Your task to perform on an android device: check out phone information Image 0: 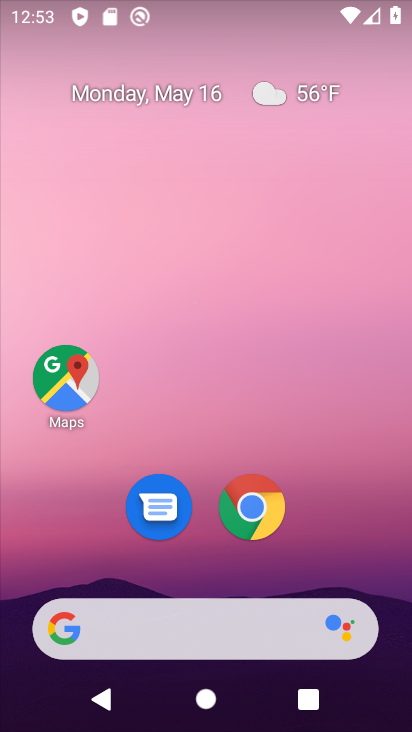
Step 0: drag from (214, 579) to (219, 204)
Your task to perform on an android device: check out phone information Image 1: 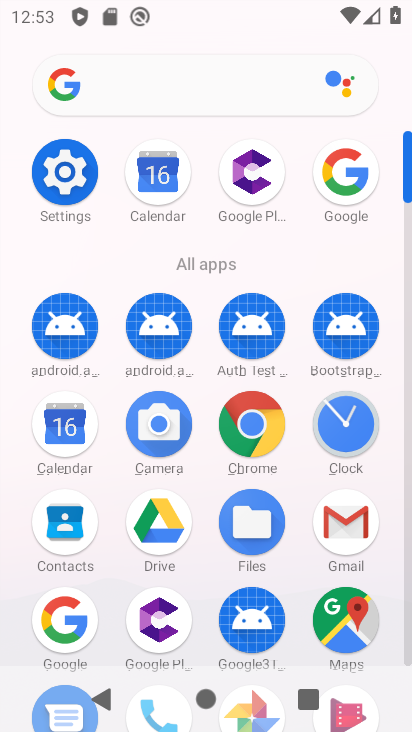
Step 1: click (57, 201)
Your task to perform on an android device: check out phone information Image 2: 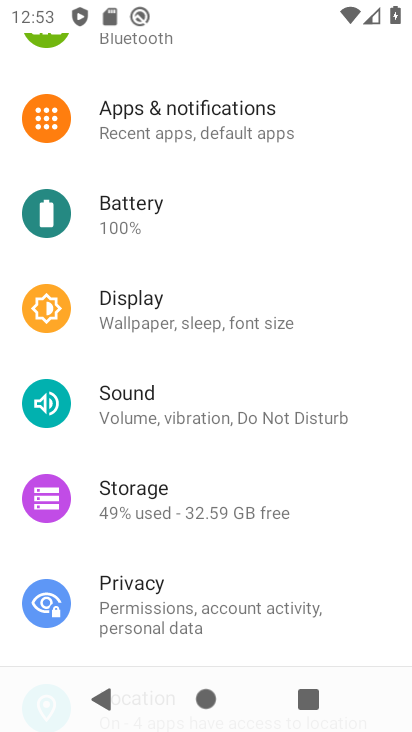
Step 2: drag from (246, 629) to (246, 240)
Your task to perform on an android device: check out phone information Image 3: 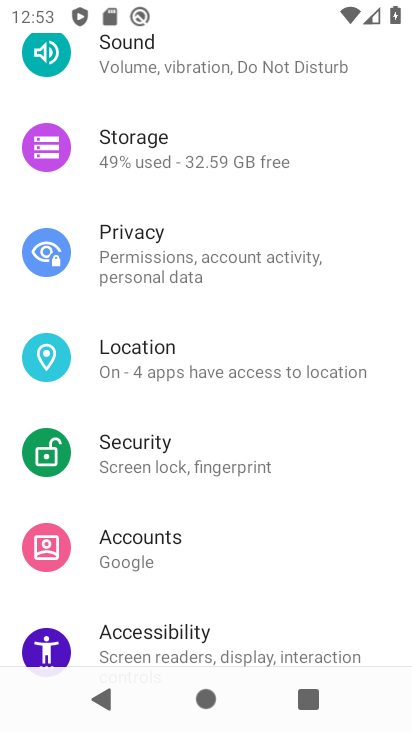
Step 3: drag from (215, 555) to (215, 259)
Your task to perform on an android device: check out phone information Image 4: 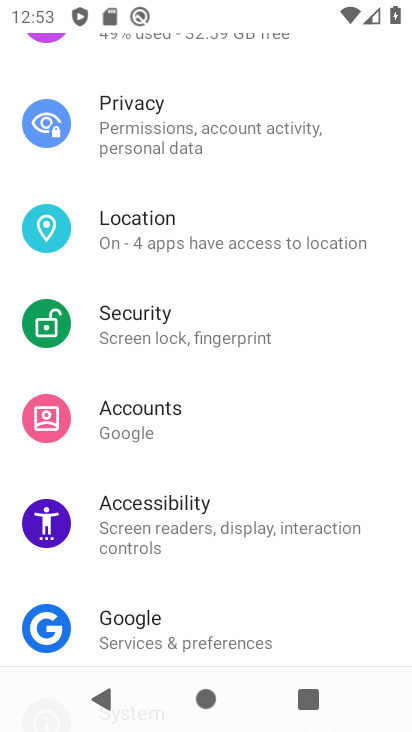
Step 4: drag from (217, 604) to (242, 281)
Your task to perform on an android device: check out phone information Image 5: 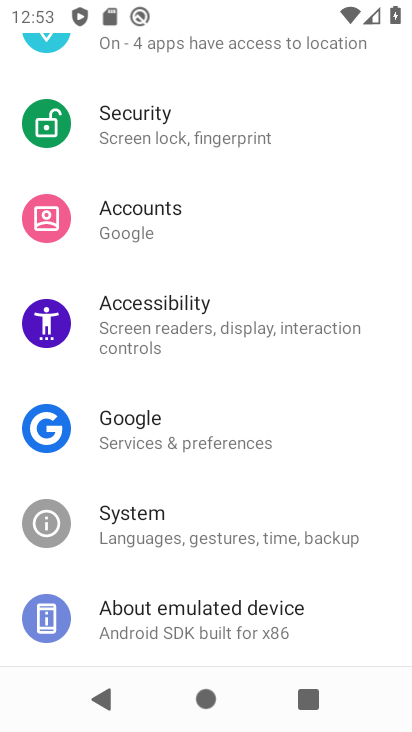
Step 5: click (176, 619)
Your task to perform on an android device: check out phone information Image 6: 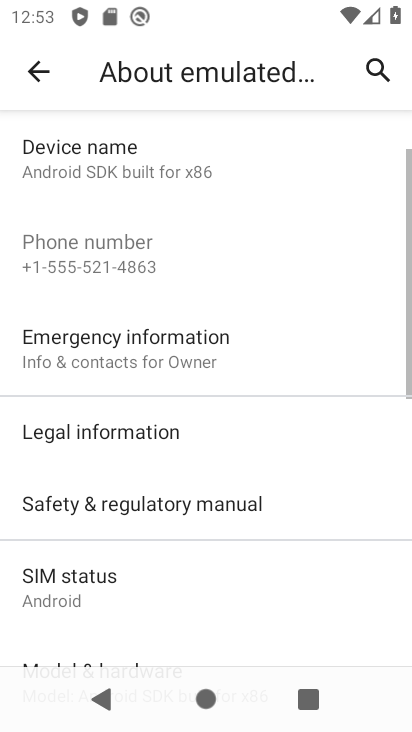
Step 6: task complete